Your task to perform on an android device: see tabs open on other devices in the chrome app Image 0: 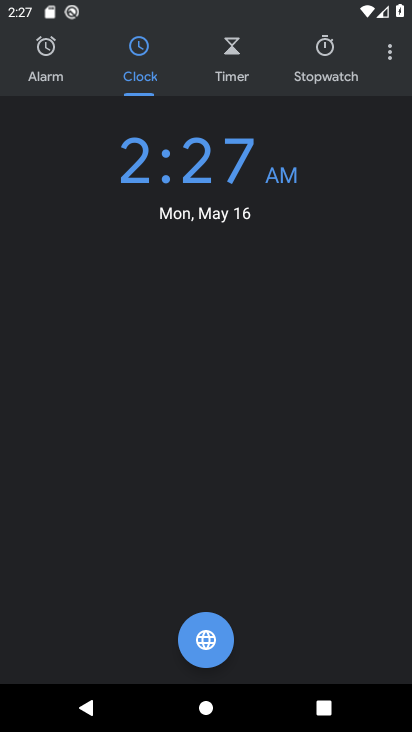
Step 0: drag from (290, 641) to (353, 396)
Your task to perform on an android device: see tabs open on other devices in the chrome app Image 1: 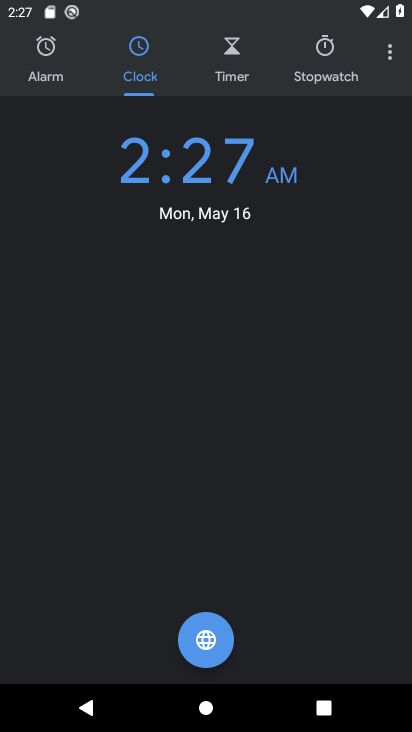
Step 1: press home button
Your task to perform on an android device: see tabs open on other devices in the chrome app Image 2: 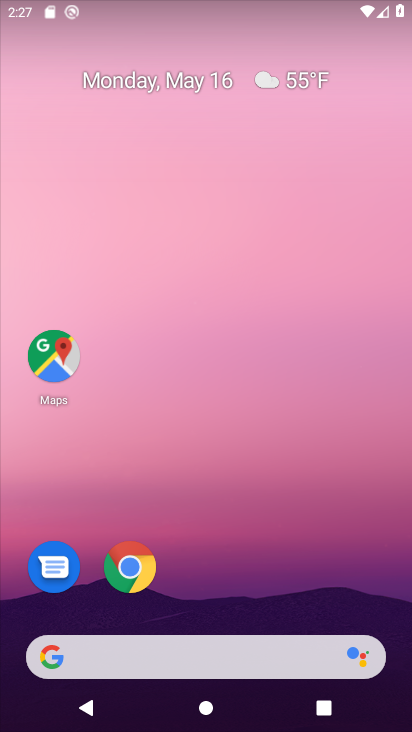
Step 2: click (143, 573)
Your task to perform on an android device: see tabs open on other devices in the chrome app Image 3: 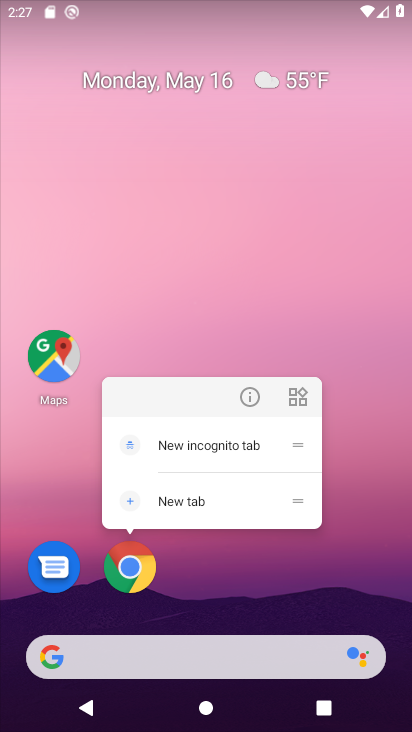
Step 3: click (133, 572)
Your task to perform on an android device: see tabs open on other devices in the chrome app Image 4: 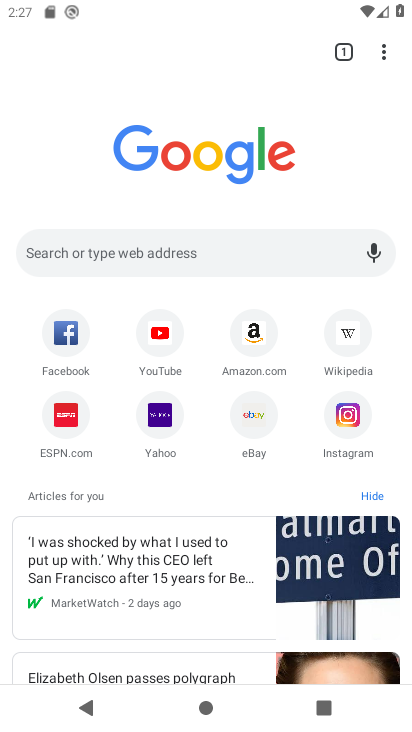
Step 4: click (387, 61)
Your task to perform on an android device: see tabs open on other devices in the chrome app Image 5: 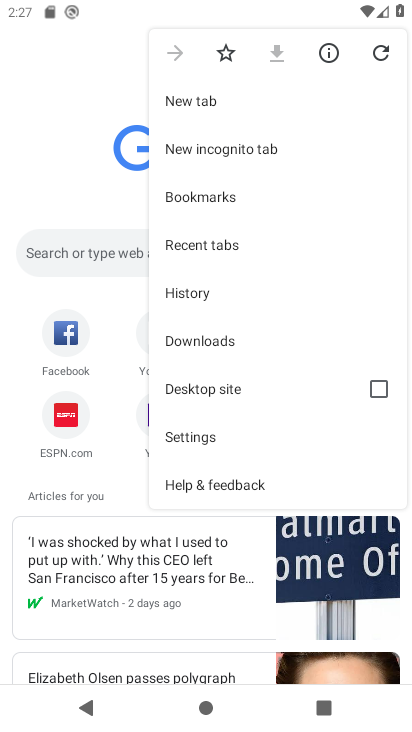
Step 5: click (228, 237)
Your task to perform on an android device: see tabs open on other devices in the chrome app Image 6: 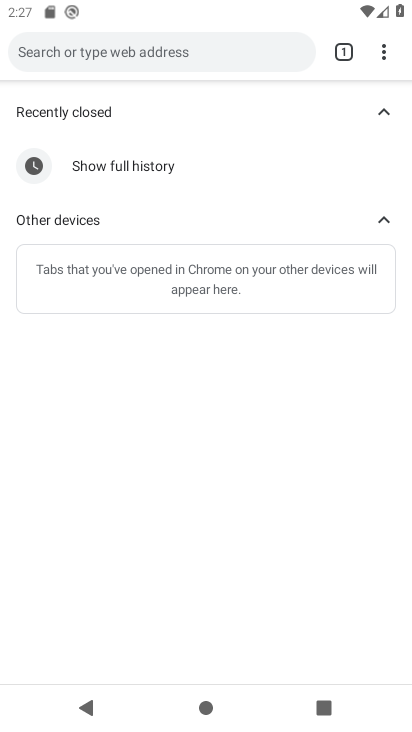
Step 6: task complete